Your task to perform on an android device: Open Maps and search for coffee Image 0: 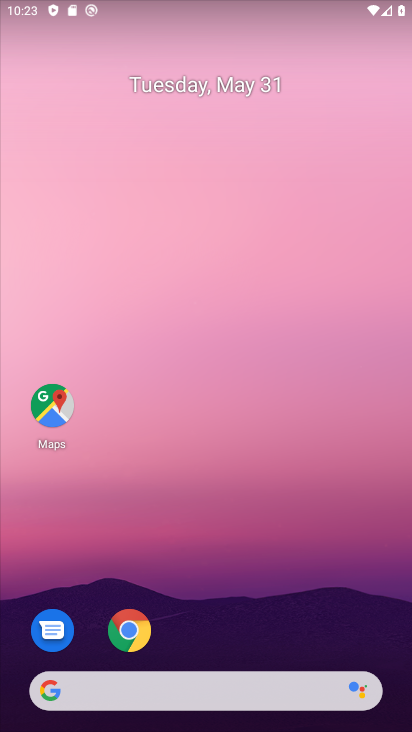
Step 0: click (51, 414)
Your task to perform on an android device: Open Maps and search for coffee Image 1: 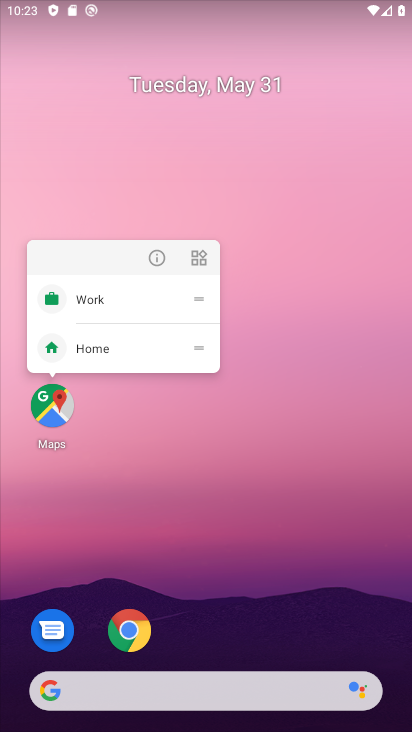
Step 1: click (54, 406)
Your task to perform on an android device: Open Maps and search for coffee Image 2: 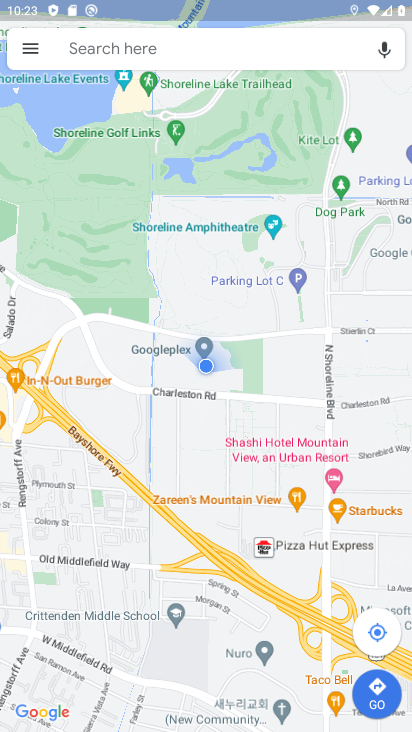
Step 2: click (209, 43)
Your task to perform on an android device: Open Maps and search for coffee Image 3: 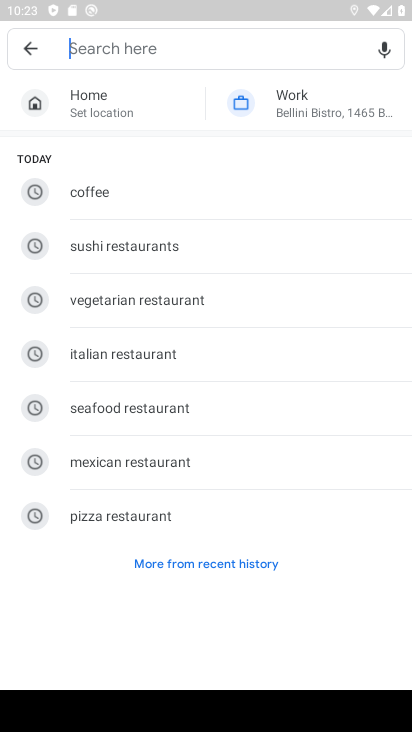
Step 3: click (91, 191)
Your task to perform on an android device: Open Maps and search for coffee Image 4: 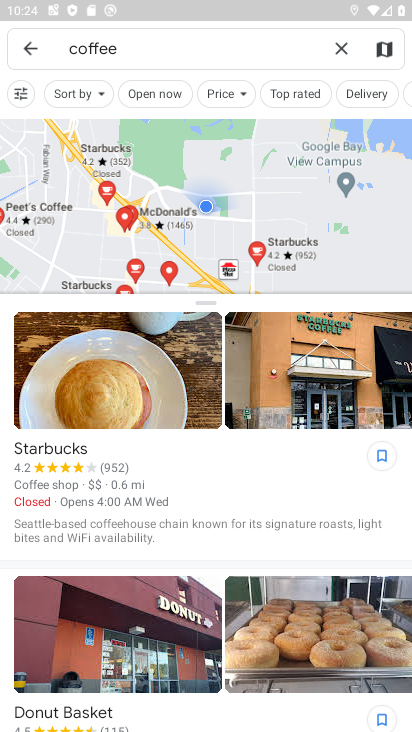
Step 4: task complete